Your task to perform on an android device: see sites visited before in the chrome app Image 0: 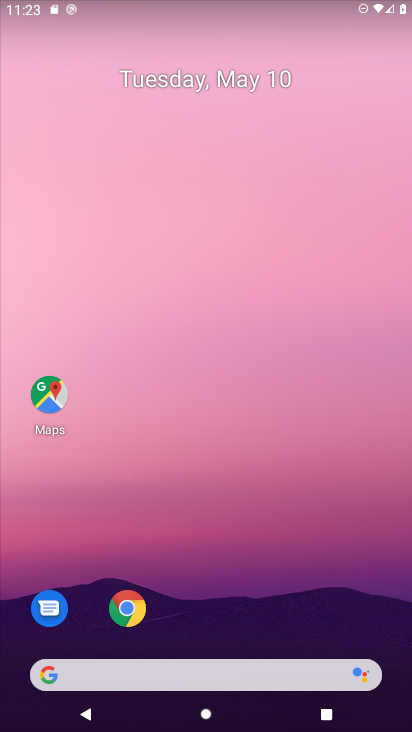
Step 0: drag from (266, 612) to (248, 59)
Your task to perform on an android device: see sites visited before in the chrome app Image 1: 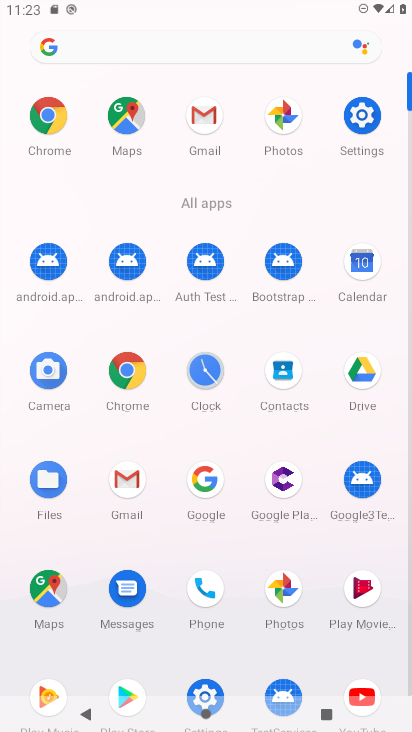
Step 1: click (38, 107)
Your task to perform on an android device: see sites visited before in the chrome app Image 2: 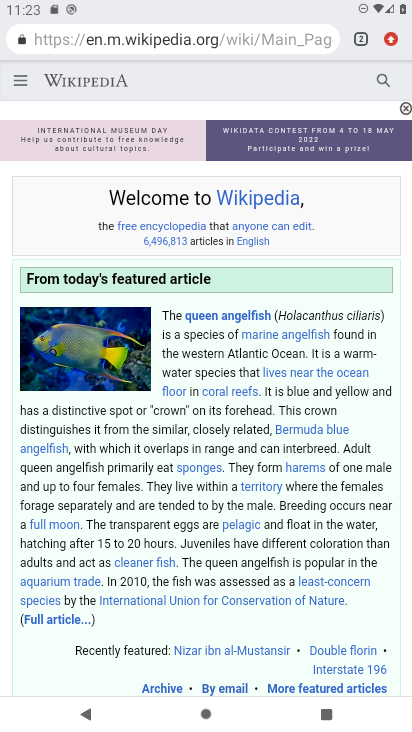
Step 2: click (387, 42)
Your task to perform on an android device: see sites visited before in the chrome app Image 3: 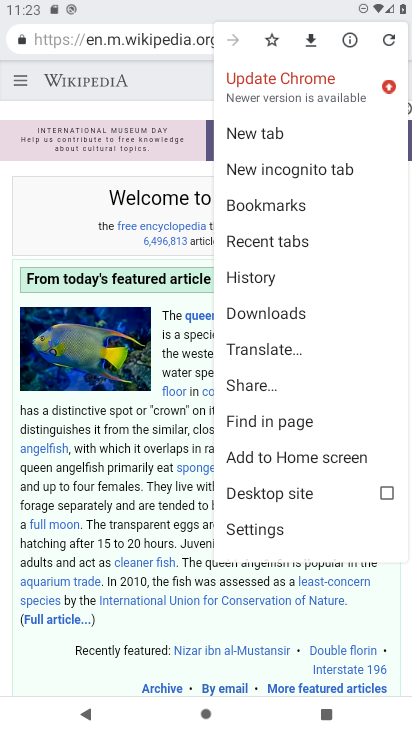
Step 3: click (281, 231)
Your task to perform on an android device: see sites visited before in the chrome app Image 4: 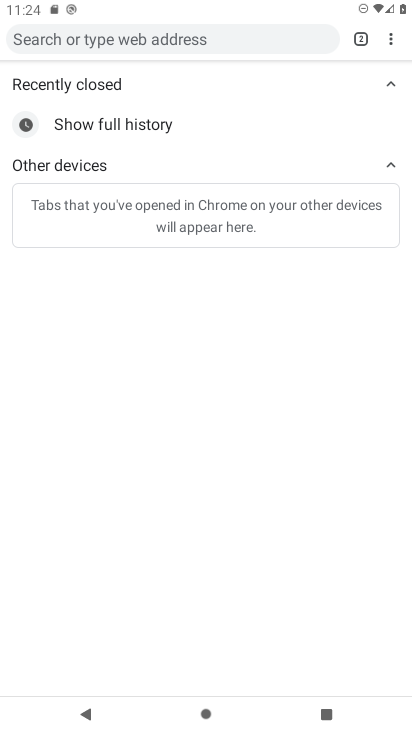
Step 4: task complete